Your task to perform on an android device: toggle location history Image 0: 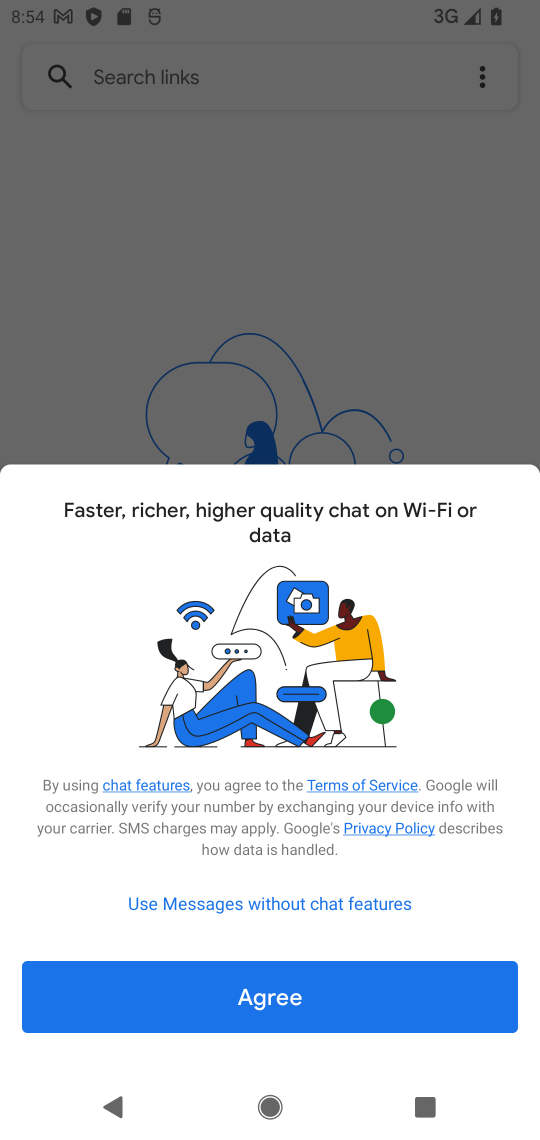
Step 0: press home button
Your task to perform on an android device: toggle location history Image 1: 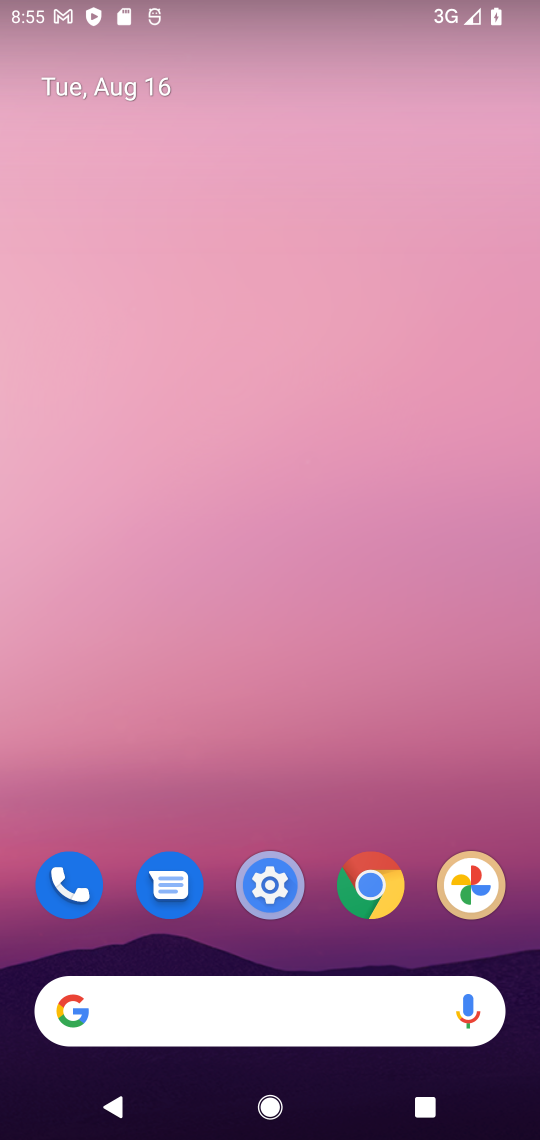
Step 1: click (271, 872)
Your task to perform on an android device: toggle location history Image 2: 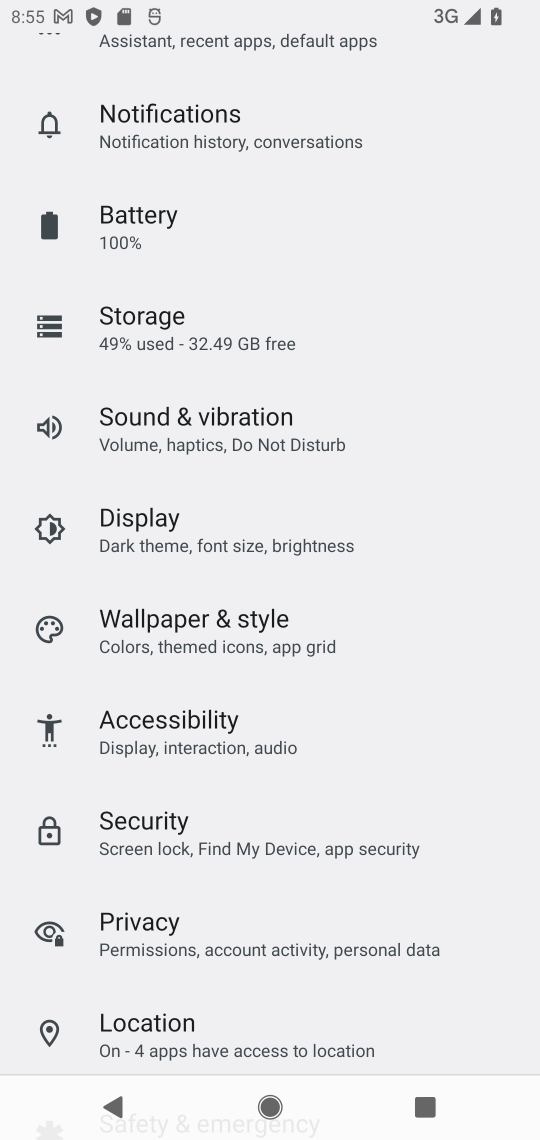
Step 2: click (123, 1047)
Your task to perform on an android device: toggle location history Image 3: 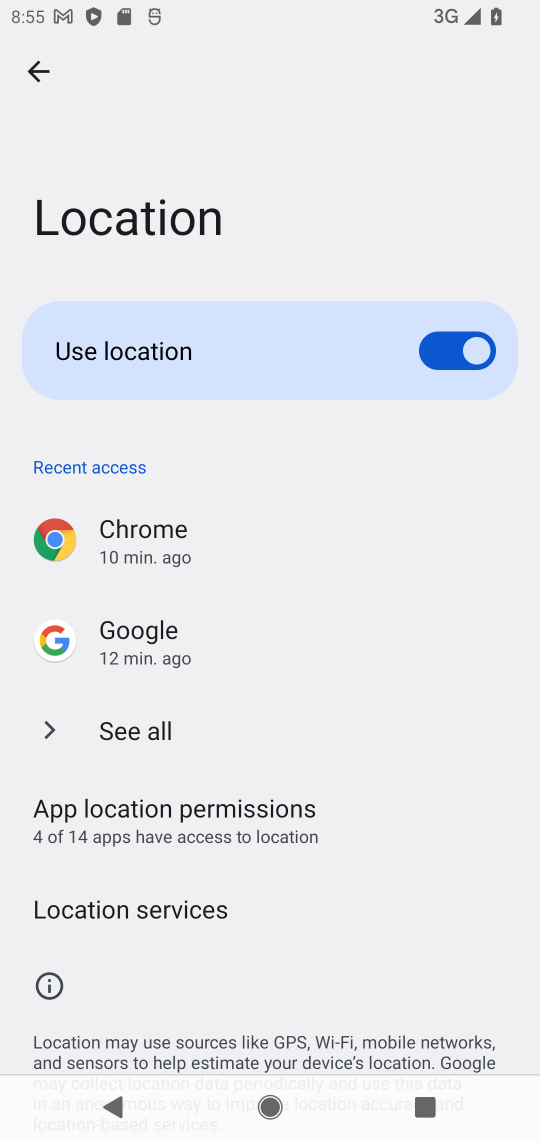
Step 3: click (212, 919)
Your task to perform on an android device: toggle location history Image 4: 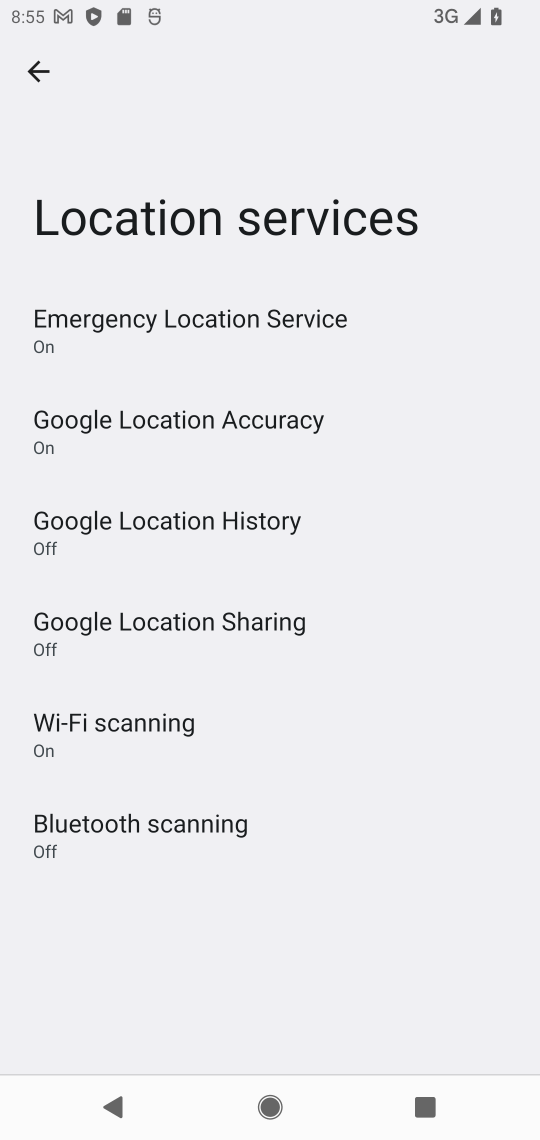
Step 4: click (235, 530)
Your task to perform on an android device: toggle location history Image 5: 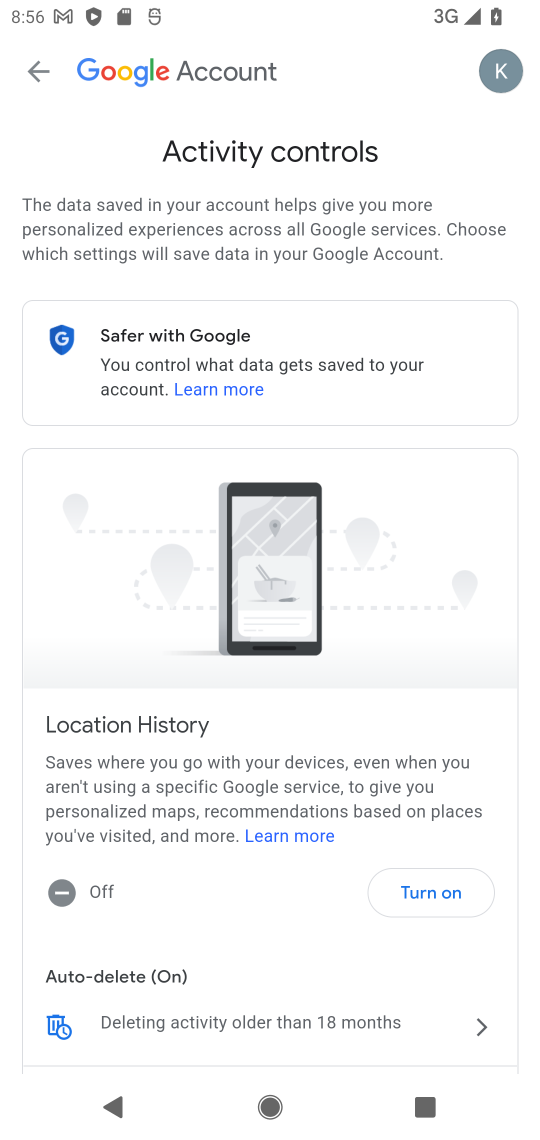
Step 5: click (439, 893)
Your task to perform on an android device: toggle location history Image 6: 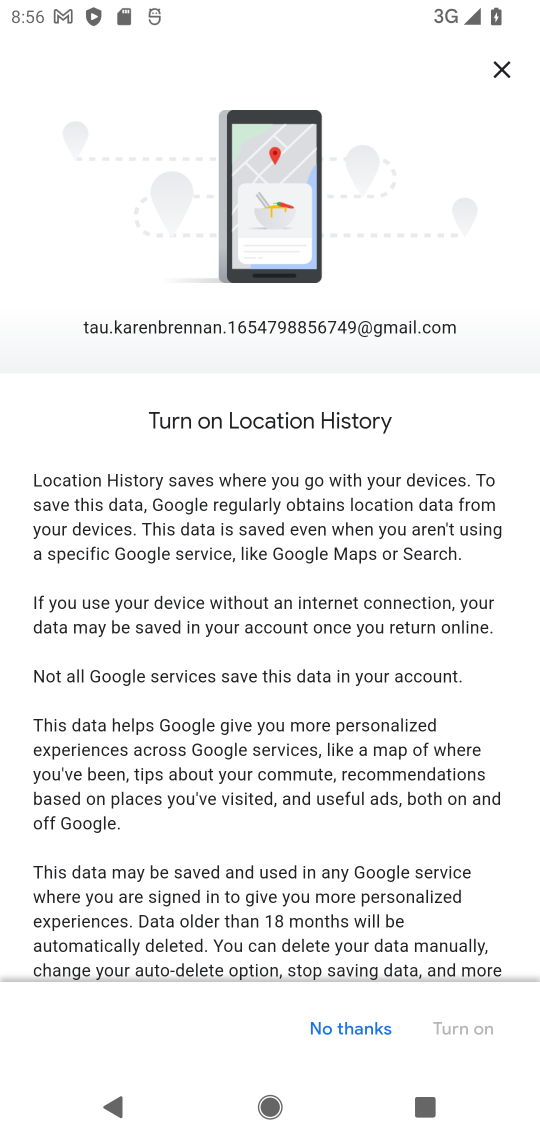
Step 6: drag from (417, 928) to (406, 178)
Your task to perform on an android device: toggle location history Image 7: 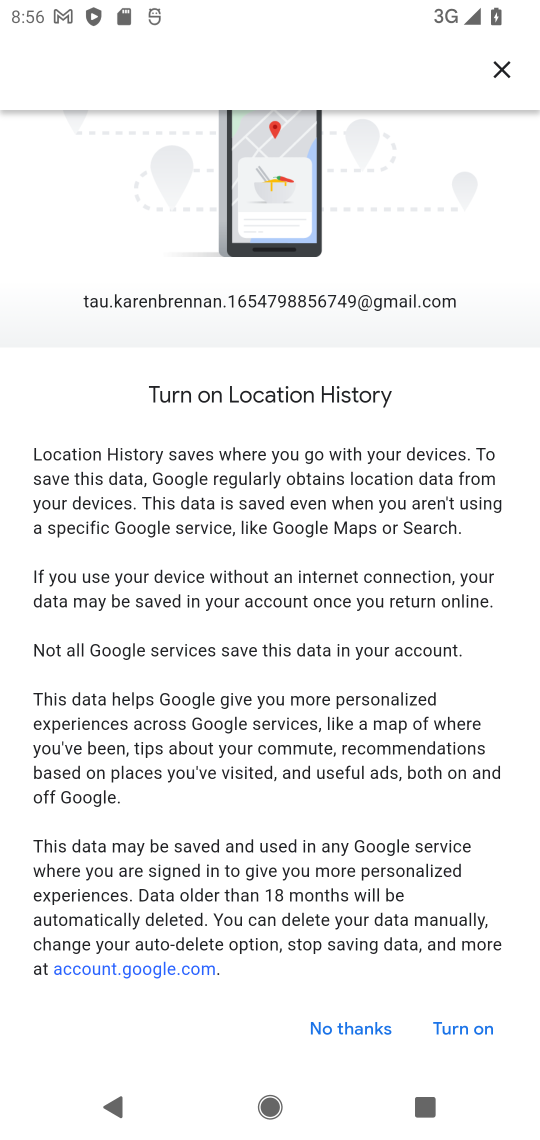
Step 7: click (462, 1022)
Your task to perform on an android device: toggle location history Image 8: 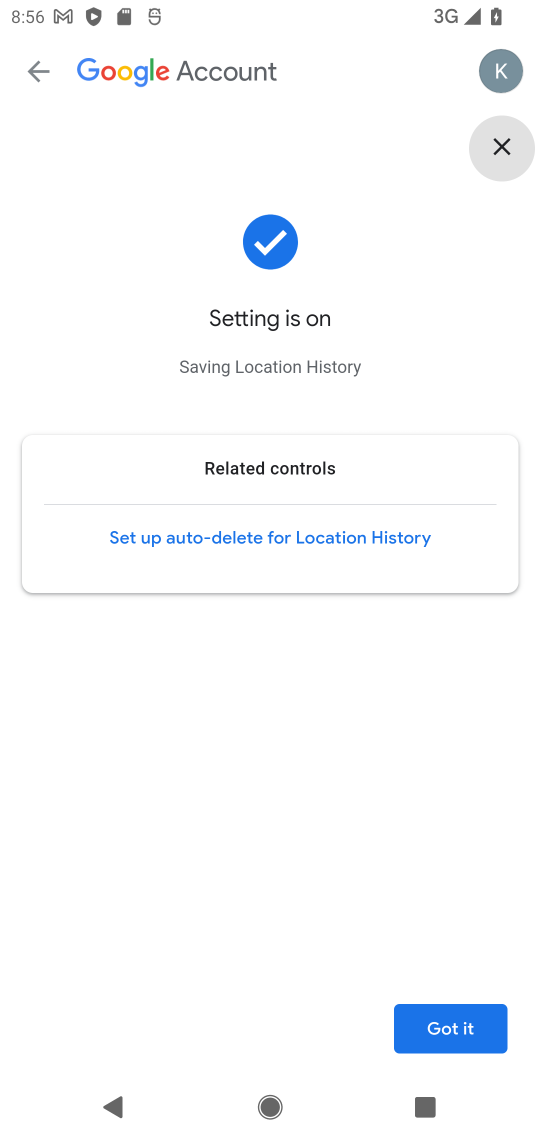
Step 8: click (462, 1022)
Your task to perform on an android device: toggle location history Image 9: 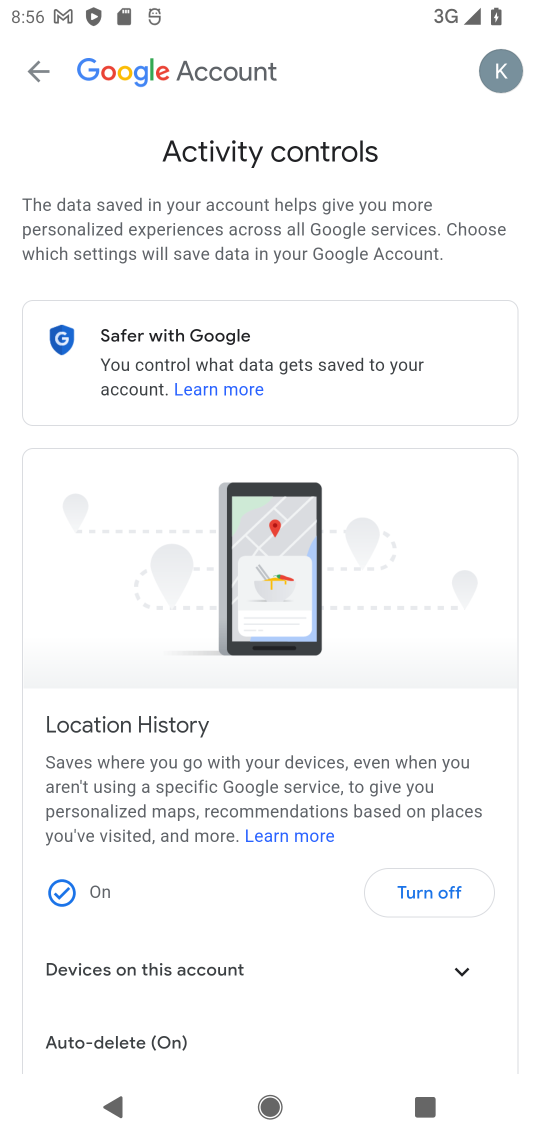
Step 9: task complete